Your task to perform on an android device: set the timer Image 0: 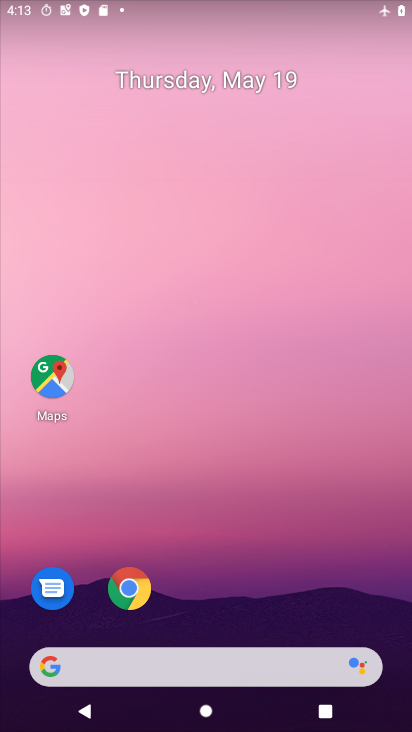
Step 0: drag from (236, 612) to (263, 27)
Your task to perform on an android device: set the timer Image 1: 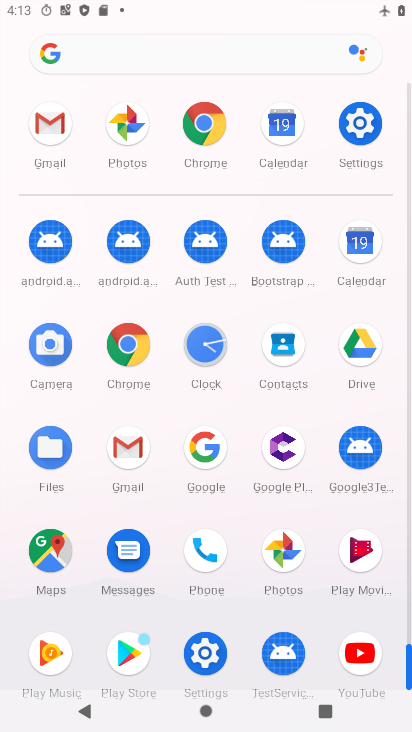
Step 1: click (206, 346)
Your task to perform on an android device: set the timer Image 2: 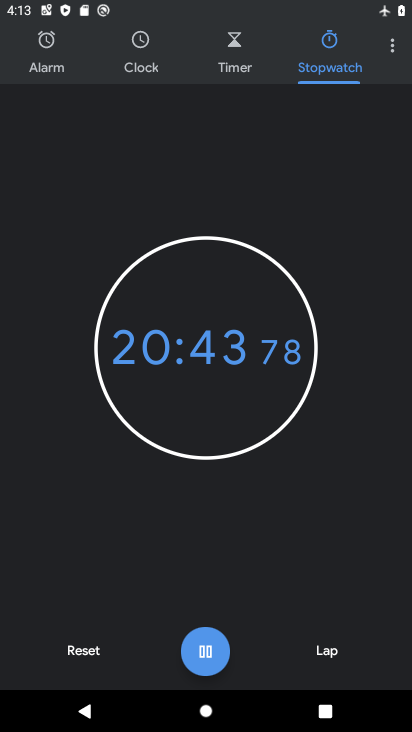
Step 2: click (91, 649)
Your task to perform on an android device: set the timer Image 3: 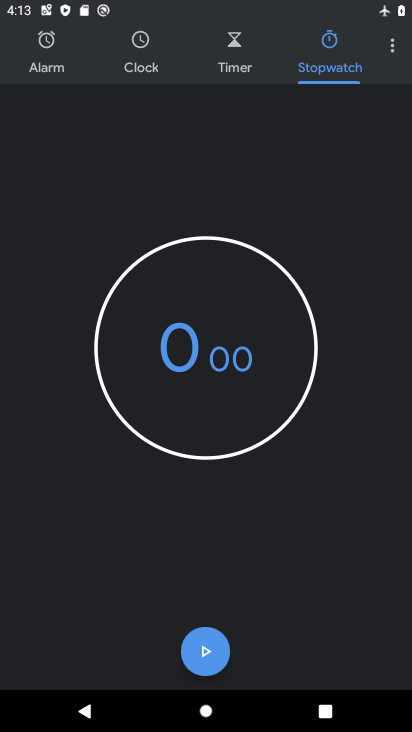
Step 3: click (238, 59)
Your task to perform on an android device: set the timer Image 4: 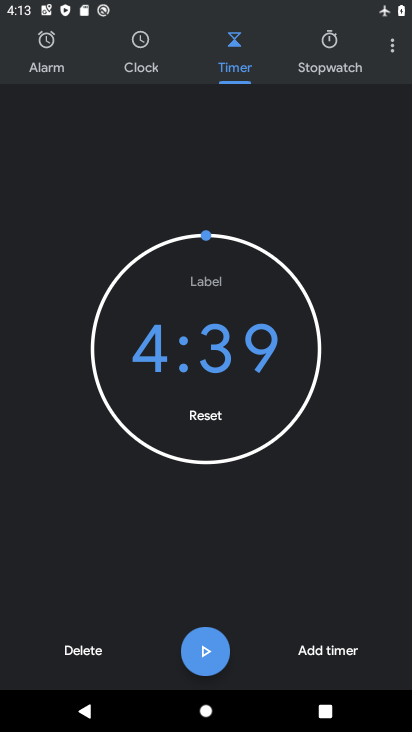
Step 4: click (61, 647)
Your task to perform on an android device: set the timer Image 5: 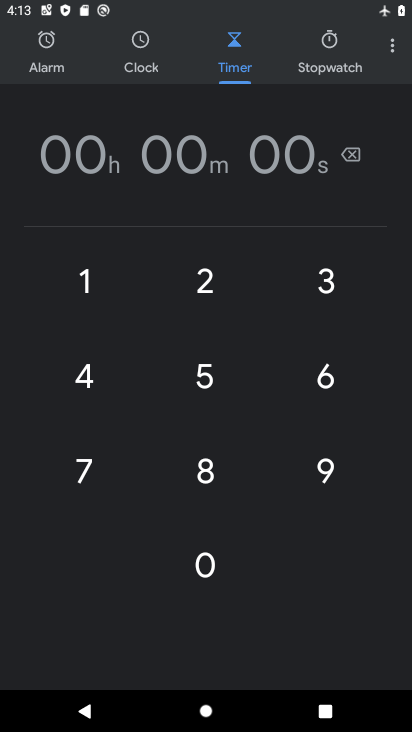
Step 5: click (322, 474)
Your task to perform on an android device: set the timer Image 6: 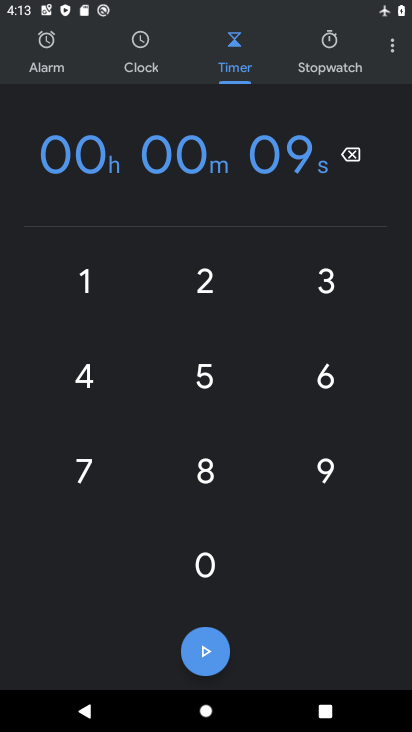
Step 6: click (200, 372)
Your task to perform on an android device: set the timer Image 7: 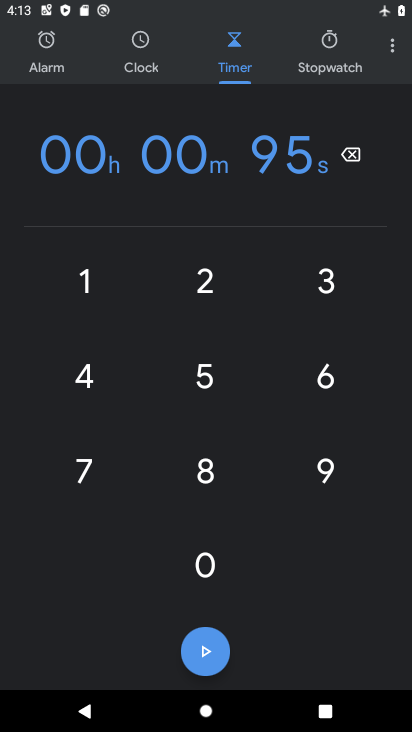
Step 7: click (325, 375)
Your task to perform on an android device: set the timer Image 8: 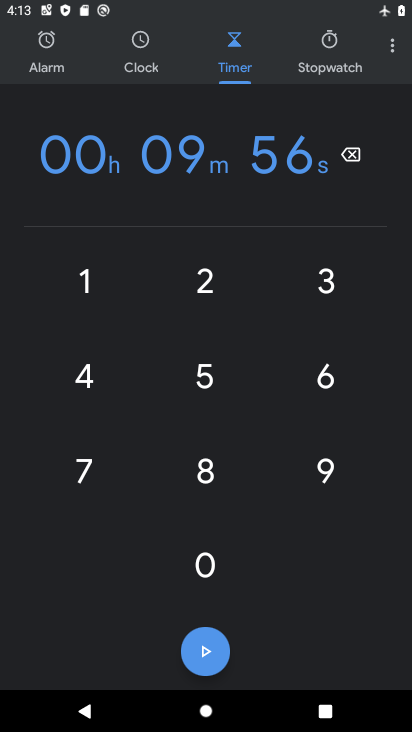
Step 8: click (202, 639)
Your task to perform on an android device: set the timer Image 9: 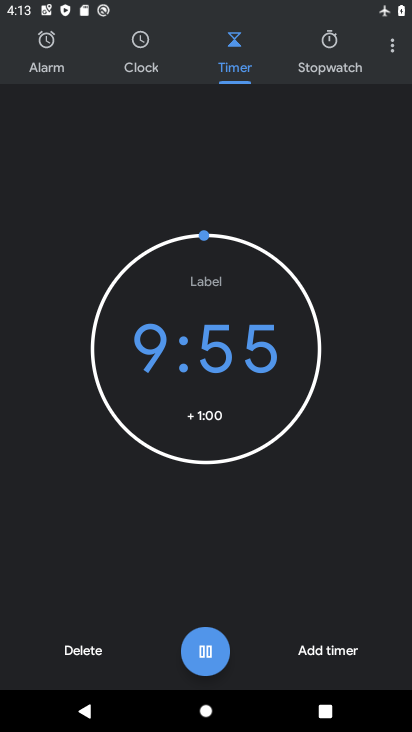
Step 9: task complete